Your task to perform on an android device: refresh tabs in the chrome app Image 0: 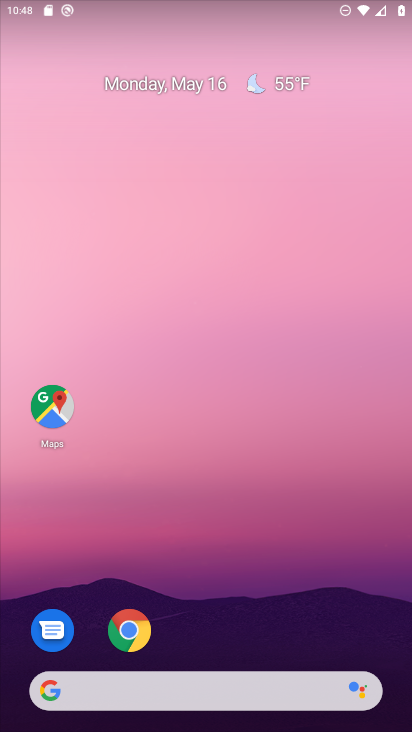
Step 0: click (145, 631)
Your task to perform on an android device: refresh tabs in the chrome app Image 1: 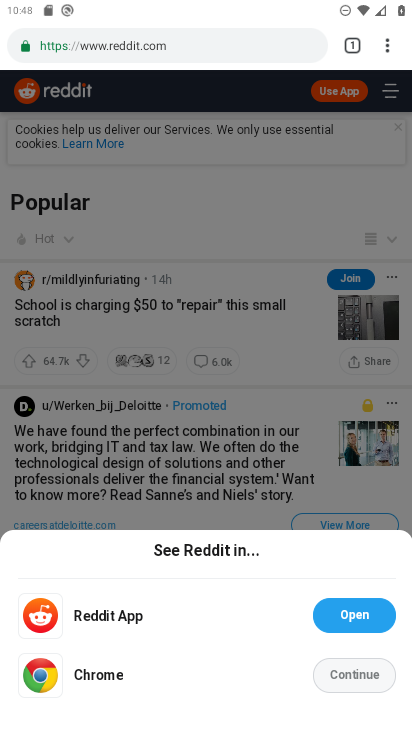
Step 1: click (386, 42)
Your task to perform on an android device: refresh tabs in the chrome app Image 2: 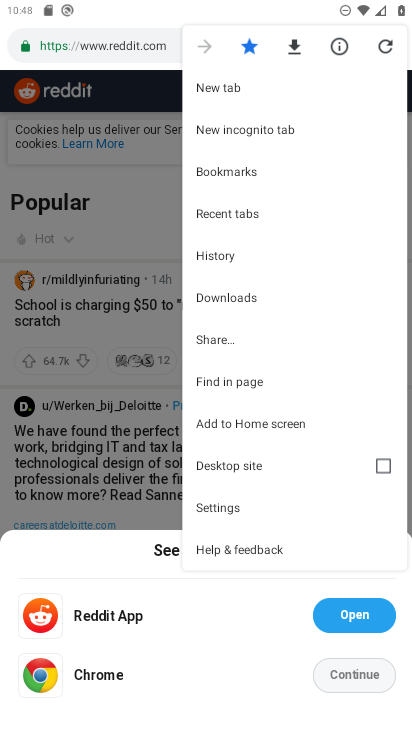
Step 2: click (377, 41)
Your task to perform on an android device: refresh tabs in the chrome app Image 3: 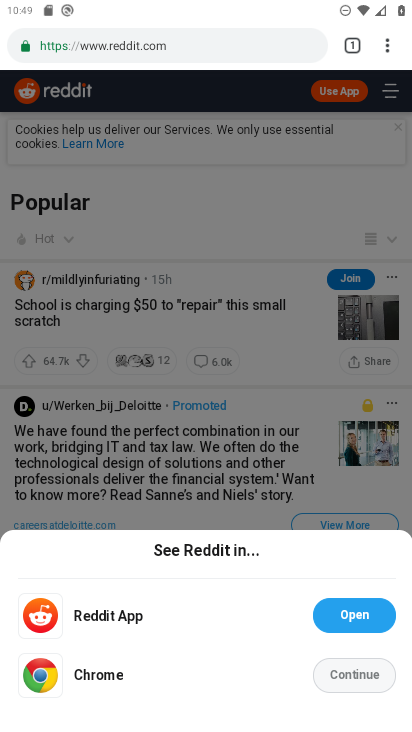
Step 3: click (331, 681)
Your task to perform on an android device: refresh tabs in the chrome app Image 4: 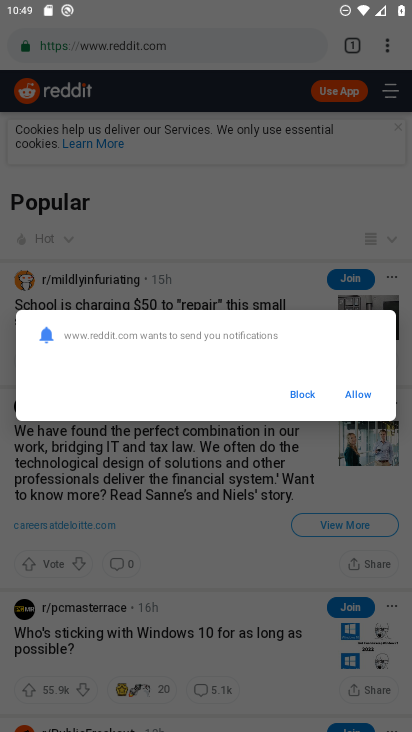
Step 4: click (350, 392)
Your task to perform on an android device: refresh tabs in the chrome app Image 5: 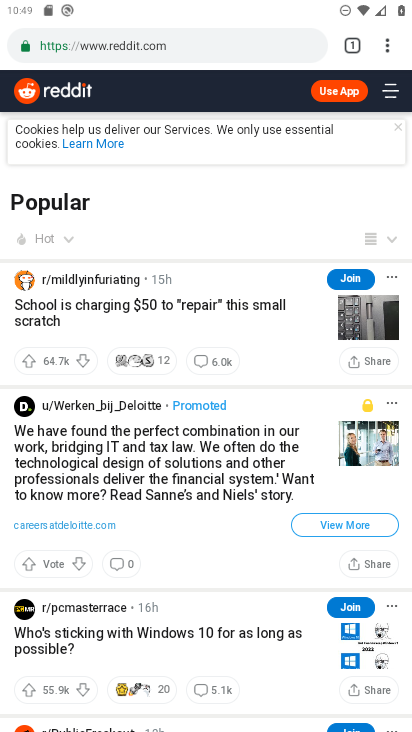
Step 5: task complete